Your task to perform on an android device: Open Chrome and go to settings Image 0: 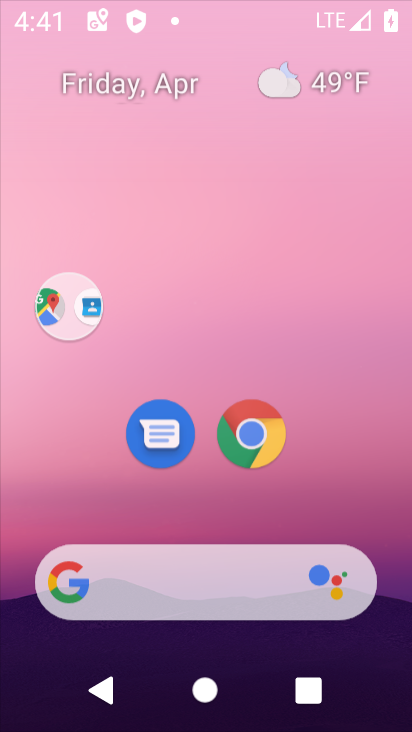
Step 0: click (258, 446)
Your task to perform on an android device: Open Chrome and go to settings Image 1: 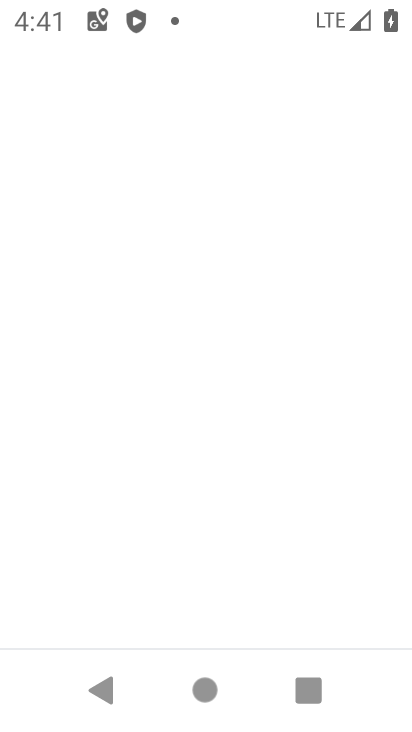
Step 1: press home button
Your task to perform on an android device: Open Chrome and go to settings Image 2: 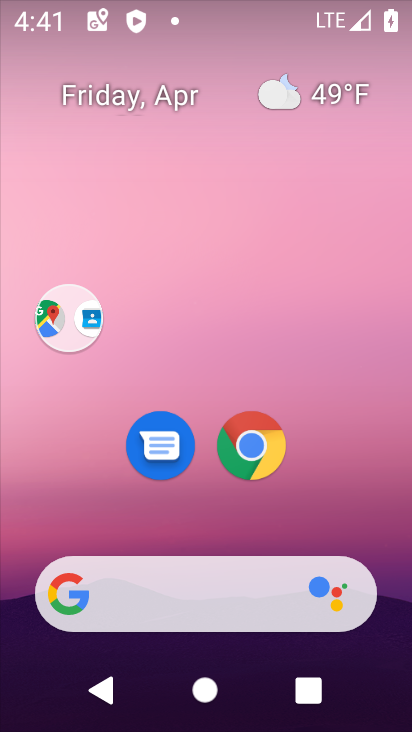
Step 2: drag from (295, 429) to (286, 34)
Your task to perform on an android device: Open Chrome and go to settings Image 3: 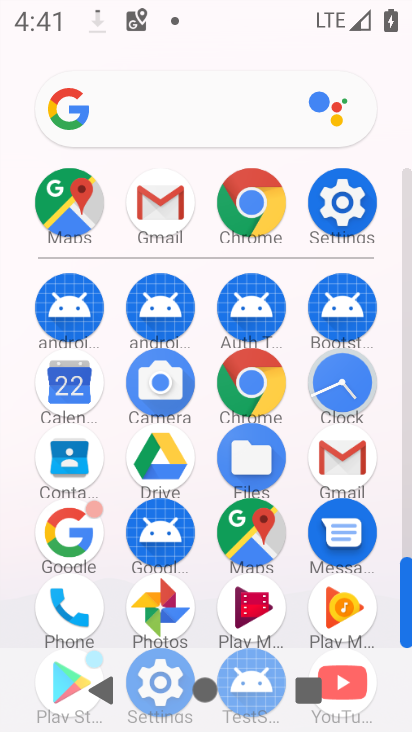
Step 3: click (240, 389)
Your task to perform on an android device: Open Chrome and go to settings Image 4: 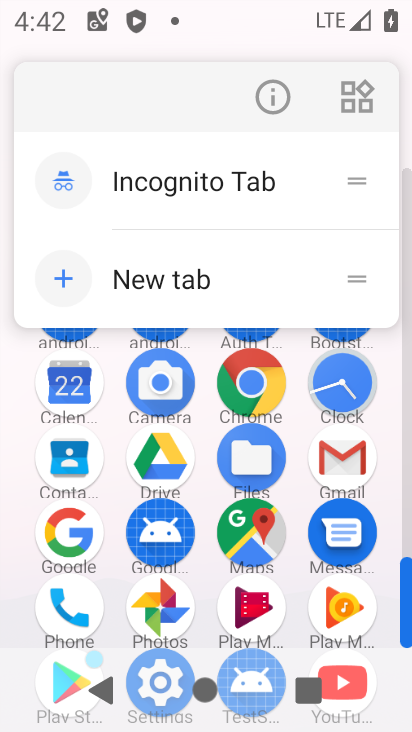
Step 4: click (248, 389)
Your task to perform on an android device: Open Chrome and go to settings Image 5: 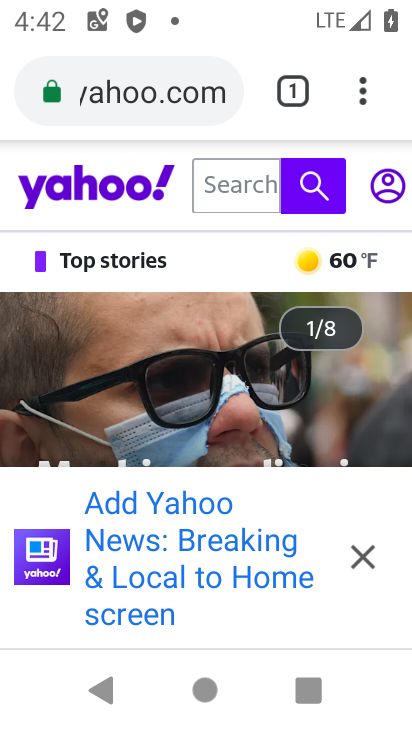
Step 5: click (367, 89)
Your task to perform on an android device: Open Chrome and go to settings Image 6: 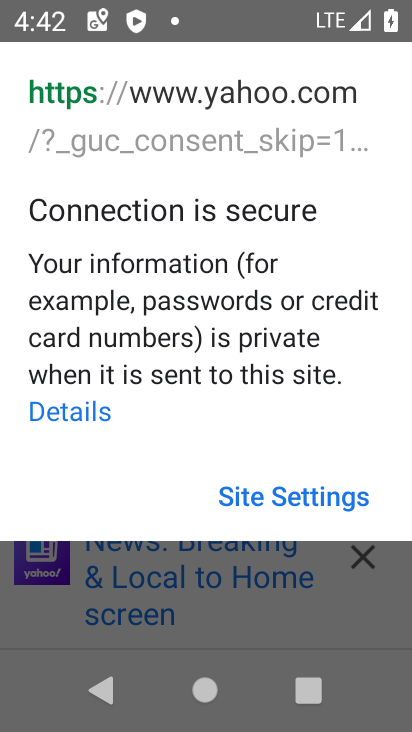
Step 6: click (273, 568)
Your task to perform on an android device: Open Chrome and go to settings Image 7: 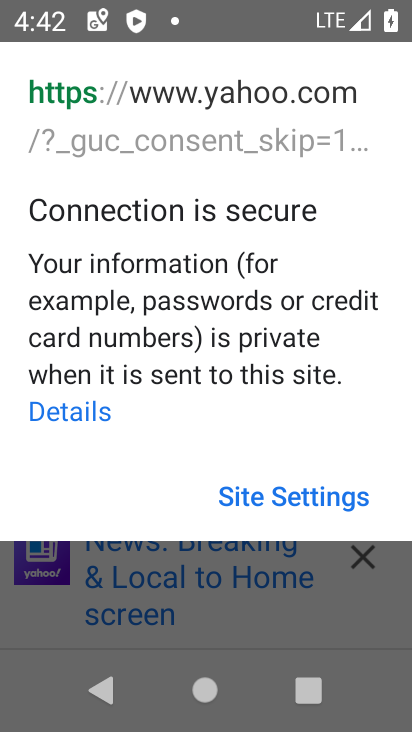
Step 7: click (343, 569)
Your task to perform on an android device: Open Chrome and go to settings Image 8: 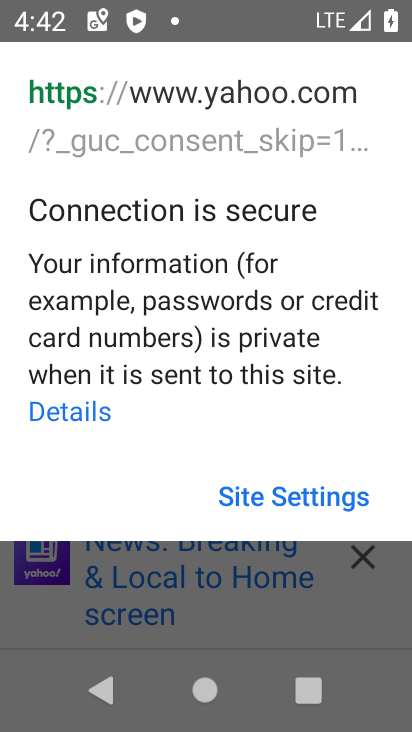
Step 8: click (313, 588)
Your task to perform on an android device: Open Chrome and go to settings Image 9: 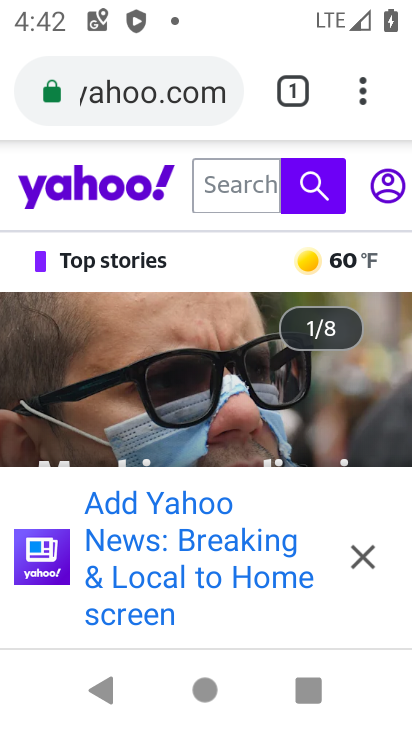
Step 9: task complete